Your task to perform on an android device: Open internet settings Image 0: 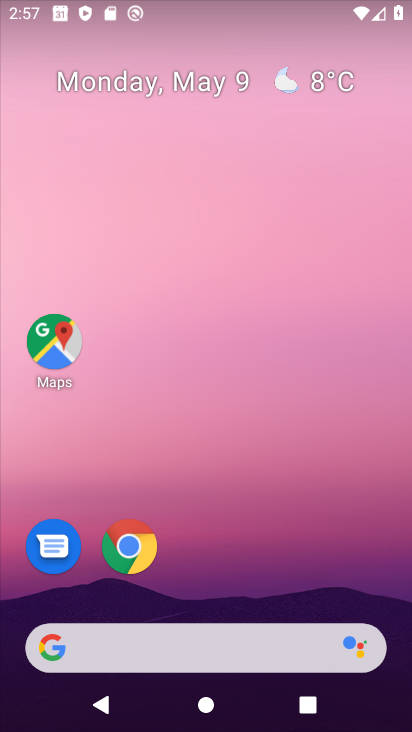
Step 0: drag from (261, 527) to (275, 73)
Your task to perform on an android device: Open internet settings Image 1: 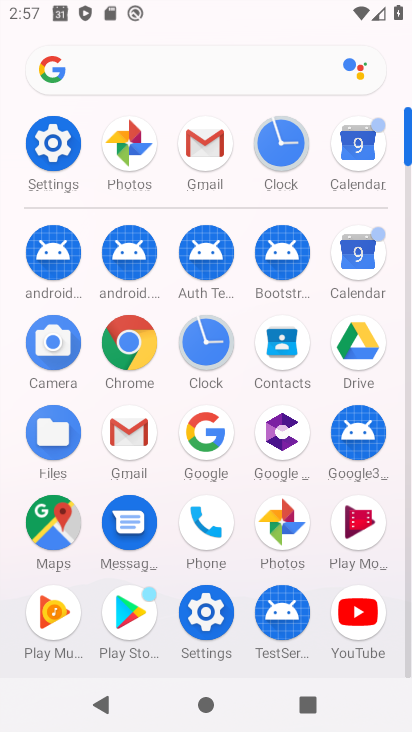
Step 1: click (54, 134)
Your task to perform on an android device: Open internet settings Image 2: 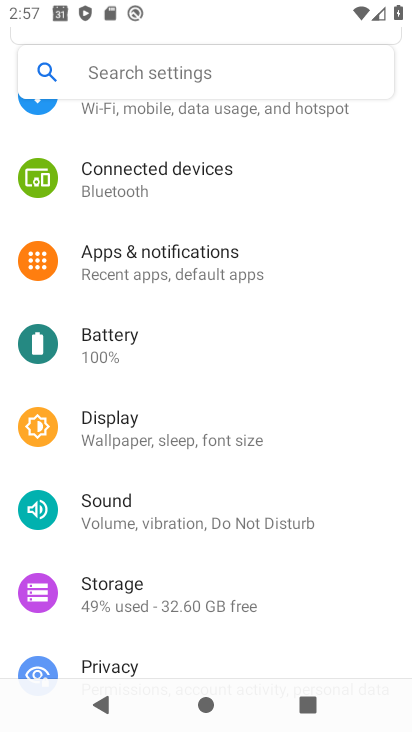
Step 2: drag from (326, 199) to (330, 650)
Your task to perform on an android device: Open internet settings Image 3: 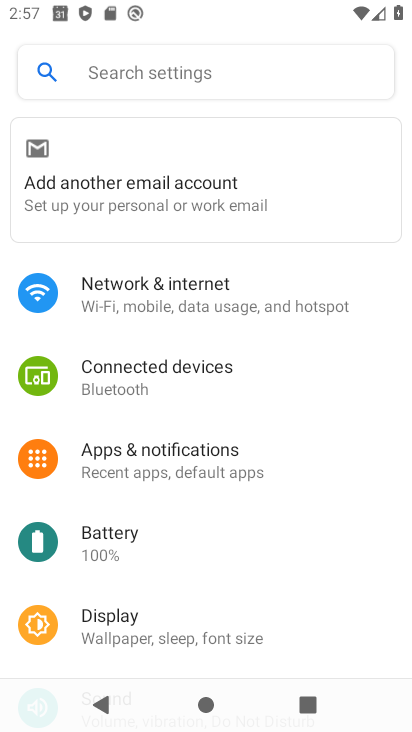
Step 3: click (210, 289)
Your task to perform on an android device: Open internet settings Image 4: 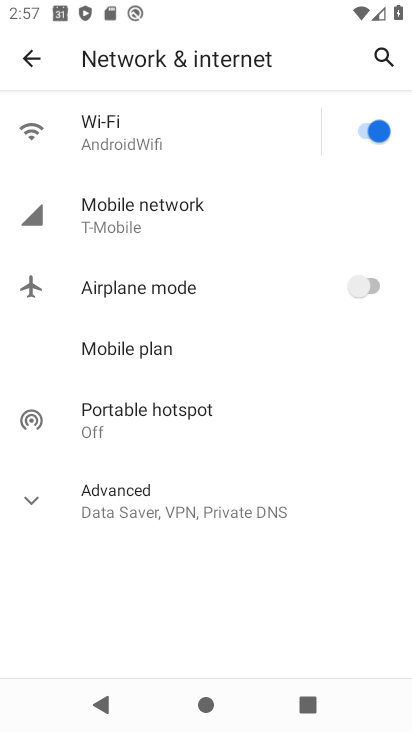
Step 4: task complete